Your task to perform on an android device: turn on notifications settings in the gmail app Image 0: 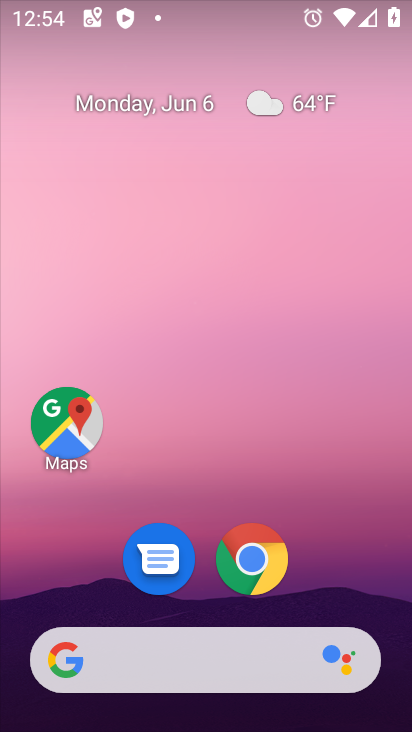
Step 0: drag from (287, 708) to (274, 205)
Your task to perform on an android device: turn on notifications settings in the gmail app Image 1: 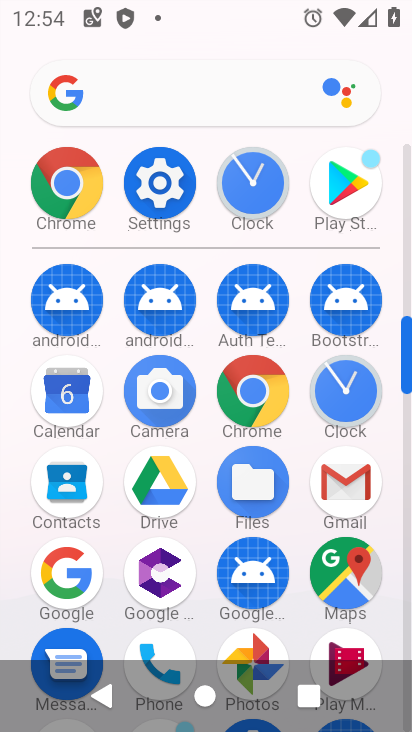
Step 1: click (349, 510)
Your task to perform on an android device: turn on notifications settings in the gmail app Image 2: 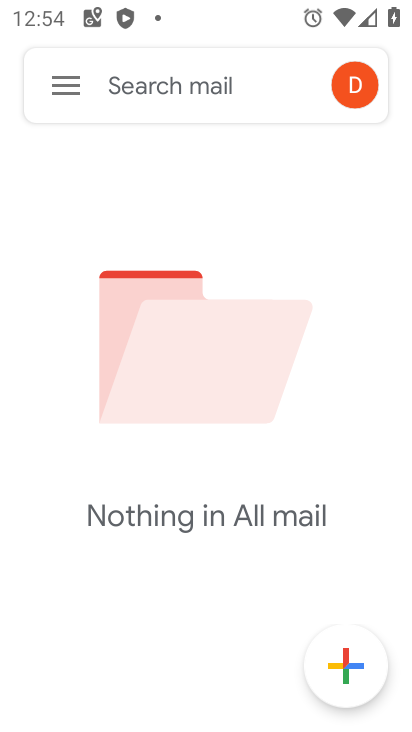
Step 2: click (77, 81)
Your task to perform on an android device: turn on notifications settings in the gmail app Image 3: 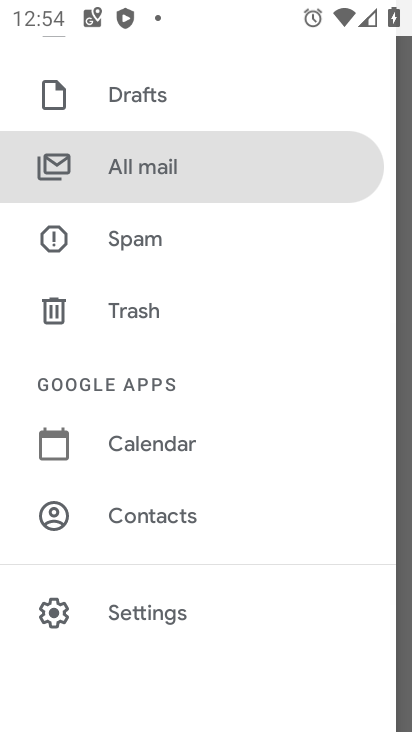
Step 3: click (152, 610)
Your task to perform on an android device: turn on notifications settings in the gmail app Image 4: 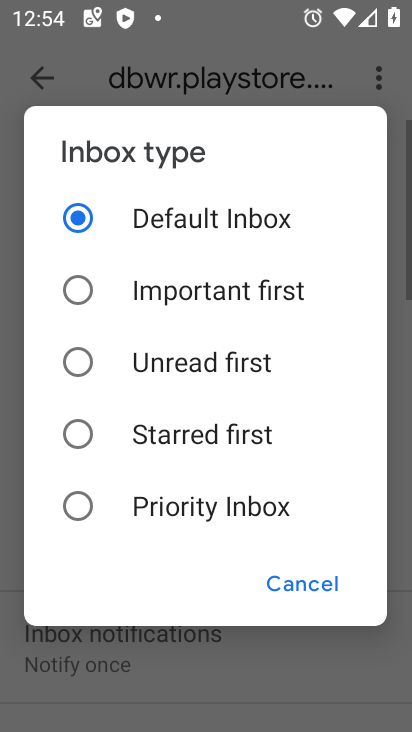
Step 4: click (294, 593)
Your task to perform on an android device: turn on notifications settings in the gmail app Image 5: 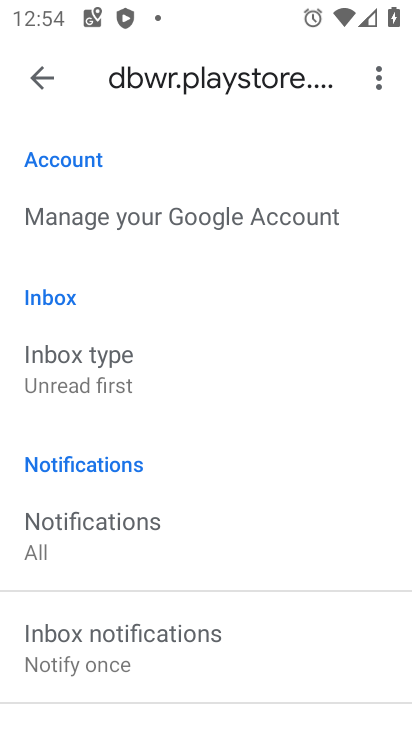
Step 5: click (106, 521)
Your task to perform on an android device: turn on notifications settings in the gmail app Image 6: 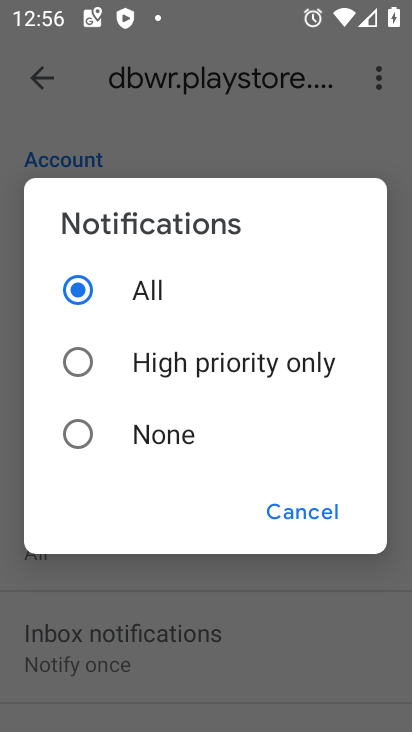
Step 6: task complete